Your task to perform on an android device: Go to accessibility settings Image 0: 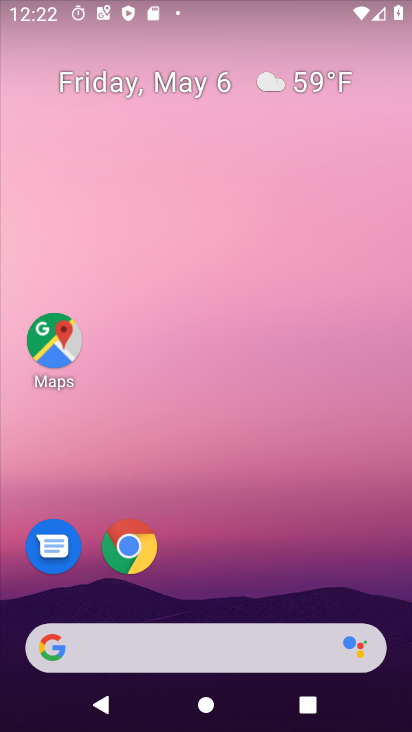
Step 0: drag from (238, 587) to (238, 182)
Your task to perform on an android device: Go to accessibility settings Image 1: 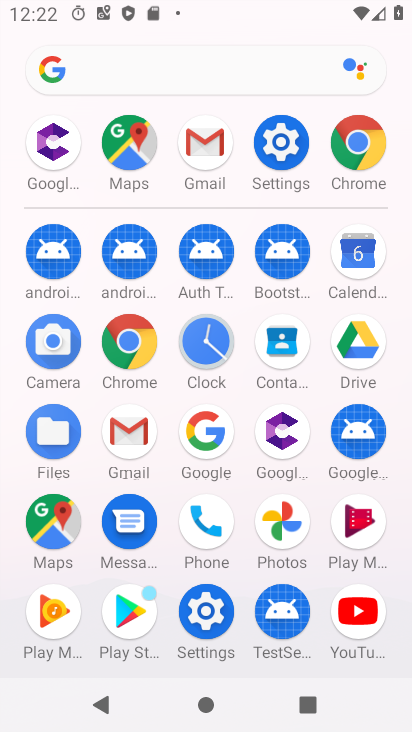
Step 1: click (280, 142)
Your task to perform on an android device: Go to accessibility settings Image 2: 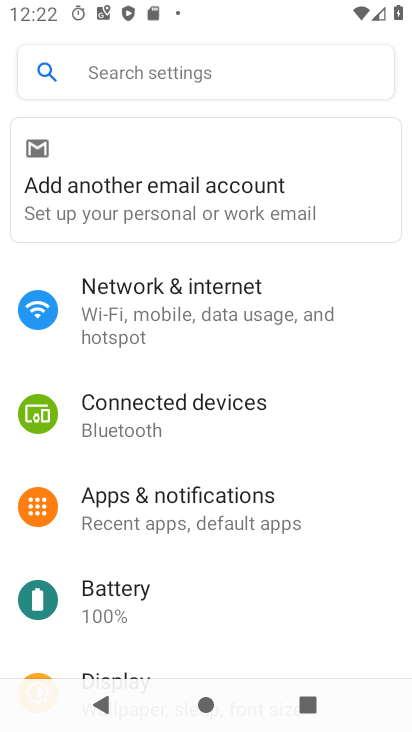
Step 2: drag from (239, 597) to (241, 262)
Your task to perform on an android device: Go to accessibility settings Image 3: 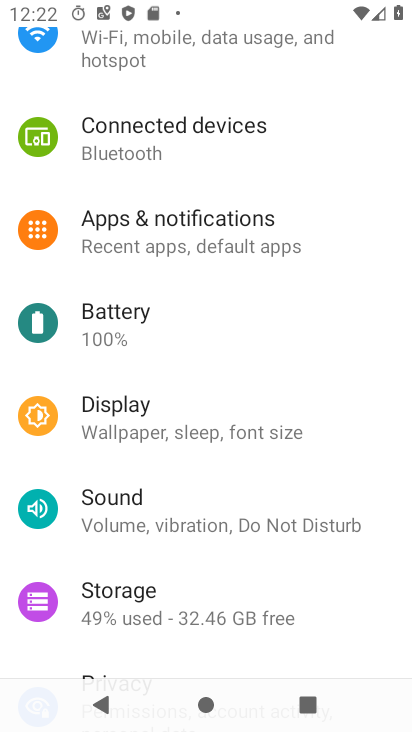
Step 3: drag from (241, 574) to (259, 202)
Your task to perform on an android device: Go to accessibility settings Image 4: 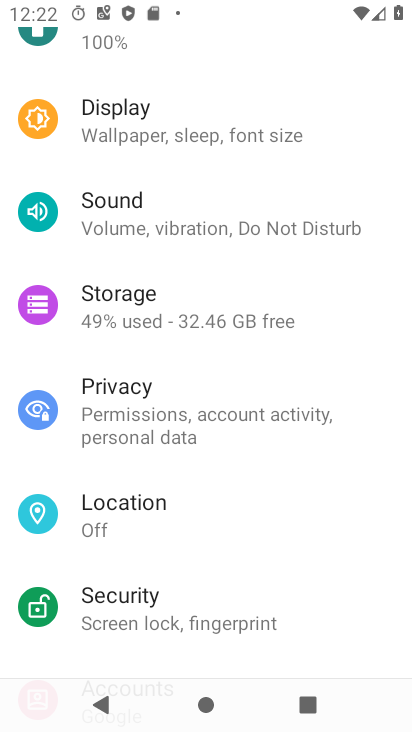
Step 4: drag from (235, 591) to (237, 250)
Your task to perform on an android device: Go to accessibility settings Image 5: 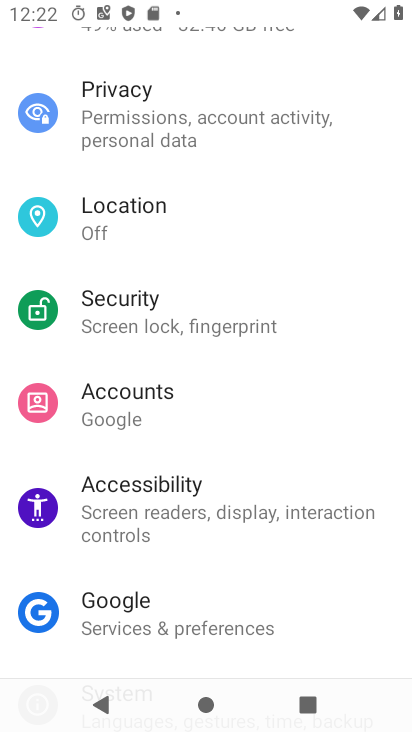
Step 5: drag from (291, 579) to (291, 223)
Your task to perform on an android device: Go to accessibility settings Image 6: 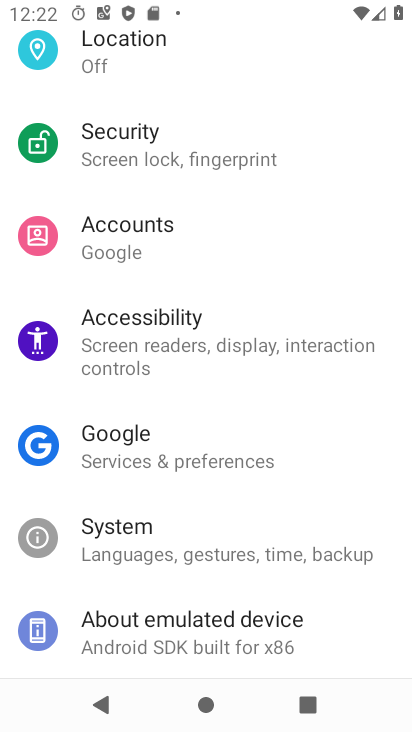
Step 6: click (171, 336)
Your task to perform on an android device: Go to accessibility settings Image 7: 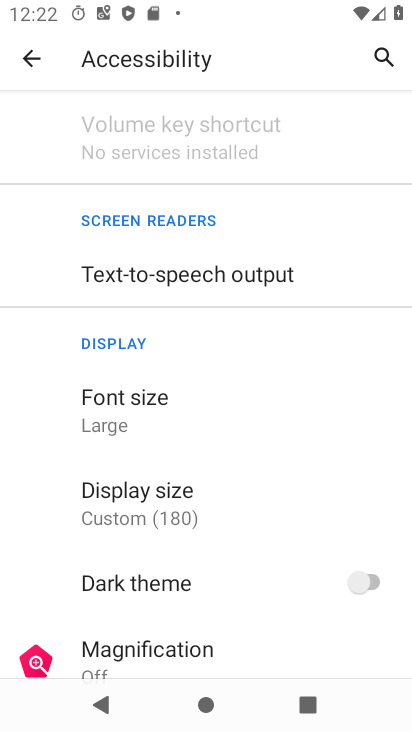
Step 7: task complete